Your task to perform on an android device: turn on javascript in the chrome app Image 0: 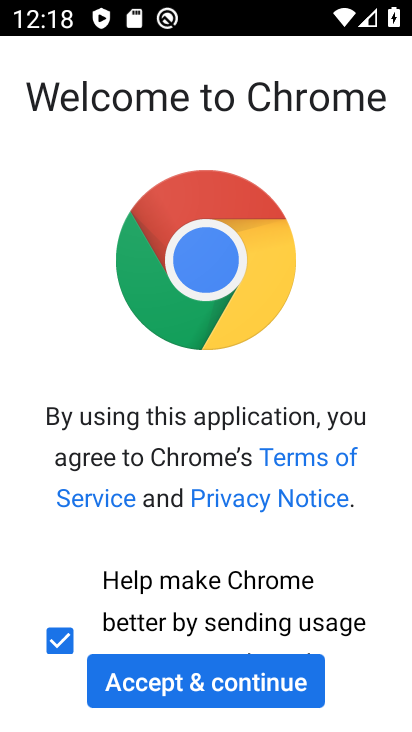
Step 0: click (216, 698)
Your task to perform on an android device: turn on javascript in the chrome app Image 1: 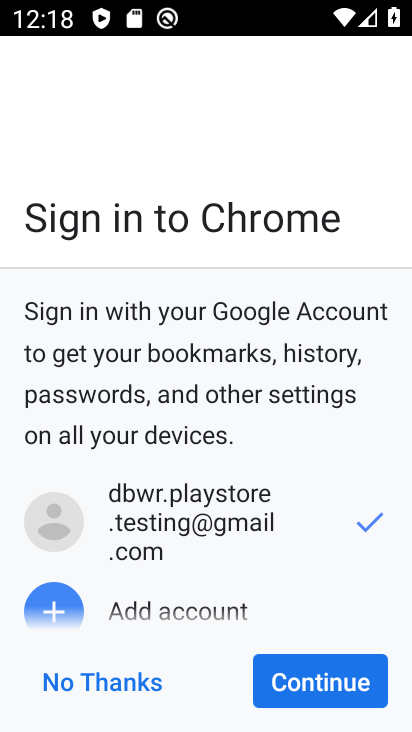
Step 1: click (82, 667)
Your task to perform on an android device: turn on javascript in the chrome app Image 2: 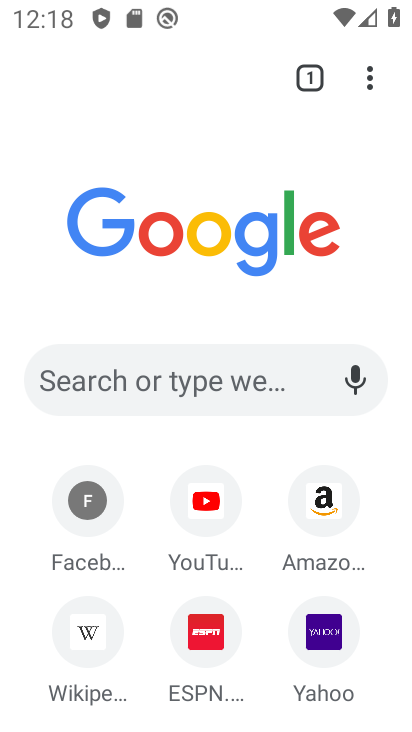
Step 2: drag from (359, 69) to (140, 604)
Your task to perform on an android device: turn on javascript in the chrome app Image 3: 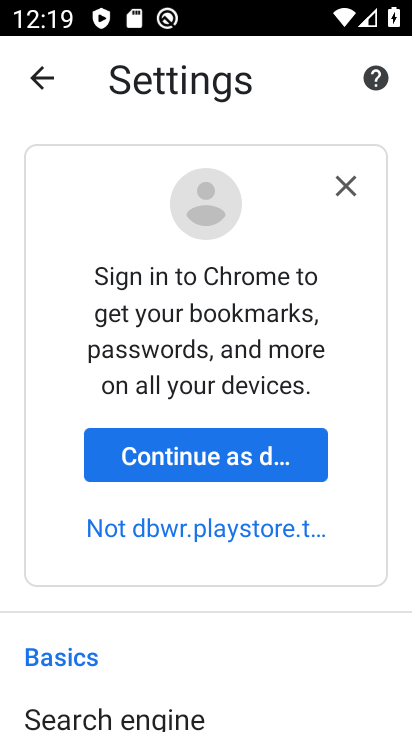
Step 3: drag from (200, 637) to (220, 291)
Your task to perform on an android device: turn on javascript in the chrome app Image 4: 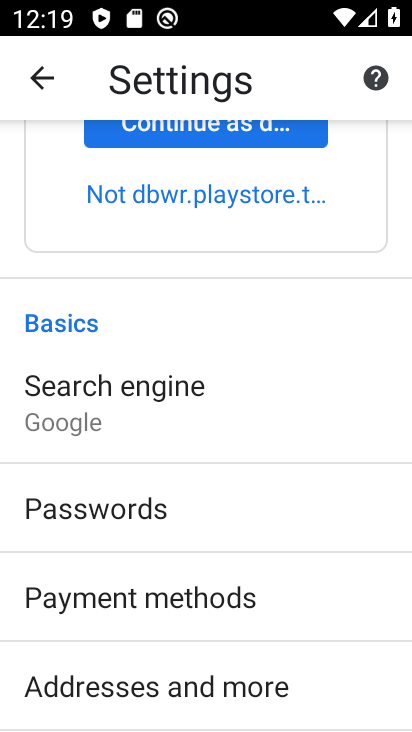
Step 4: drag from (208, 585) to (232, 202)
Your task to perform on an android device: turn on javascript in the chrome app Image 5: 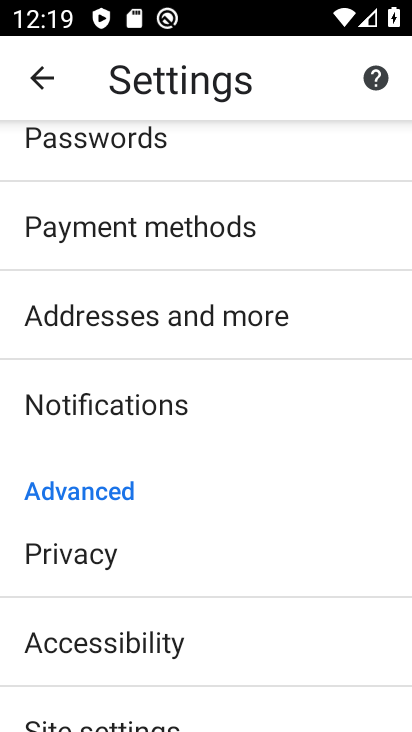
Step 5: drag from (278, 558) to (276, 61)
Your task to perform on an android device: turn on javascript in the chrome app Image 6: 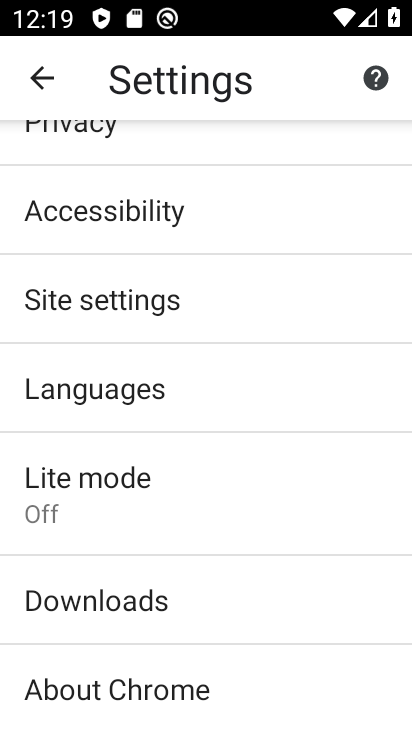
Step 6: click (111, 296)
Your task to perform on an android device: turn on javascript in the chrome app Image 7: 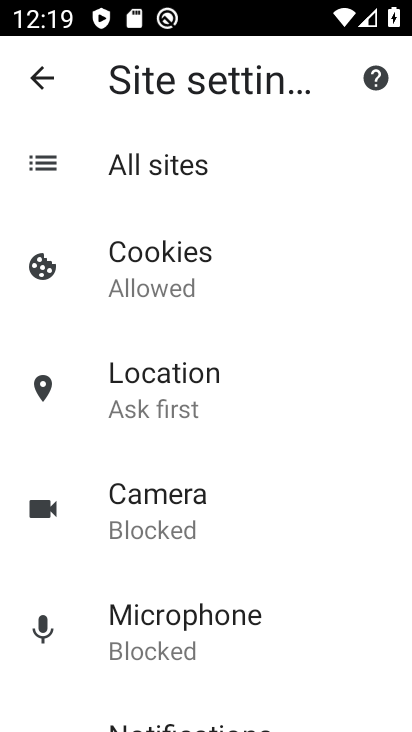
Step 7: drag from (230, 418) to (230, 267)
Your task to perform on an android device: turn on javascript in the chrome app Image 8: 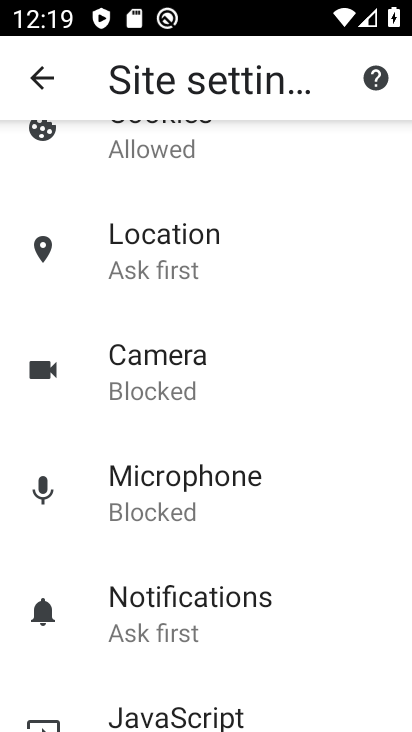
Step 8: drag from (268, 664) to (315, 162)
Your task to perform on an android device: turn on javascript in the chrome app Image 9: 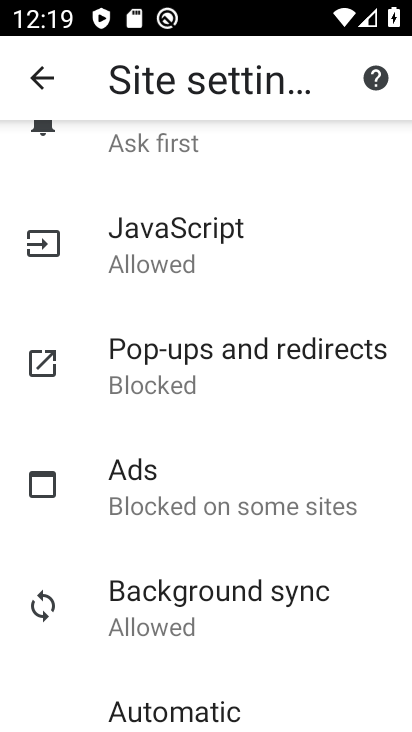
Step 9: click (196, 272)
Your task to perform on an android device: turn on javascript in the chrome app Image 10: 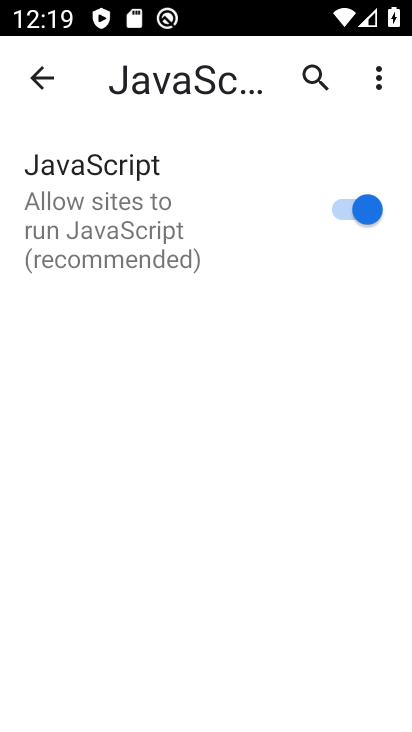
Step 10: task complete